Your task to perform on an android device: turn off javascript in the chrome app Image 0: 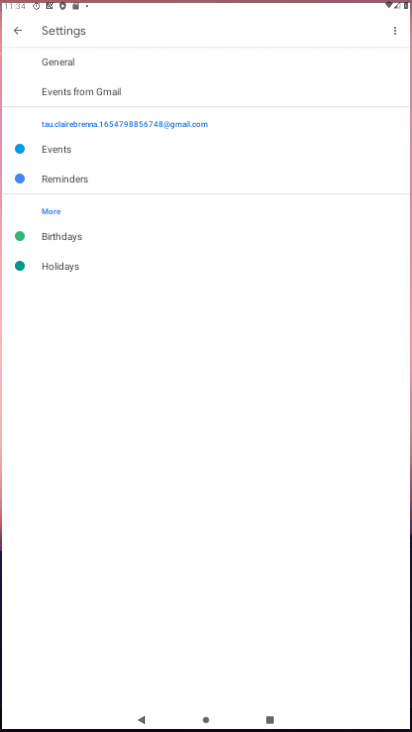
Step 0: drag from (272, 687) to (245, 137)
Your task to perform on an android device: turn off javascript in the chrome app Image 1: 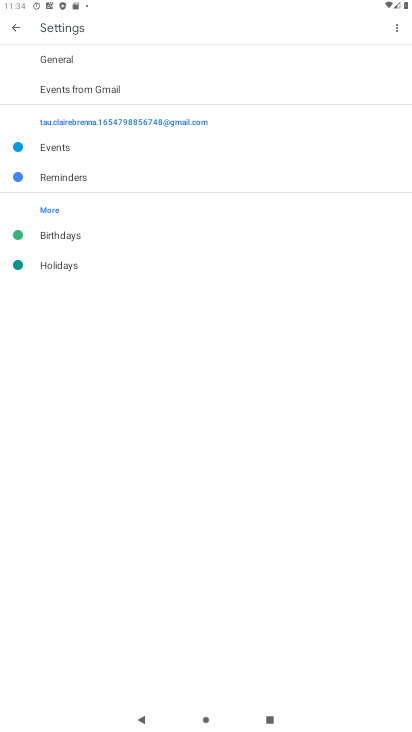
Step 1: click (24, 27)
Your task to perform on an android device: turn off javascript in the chrome app Image 2: 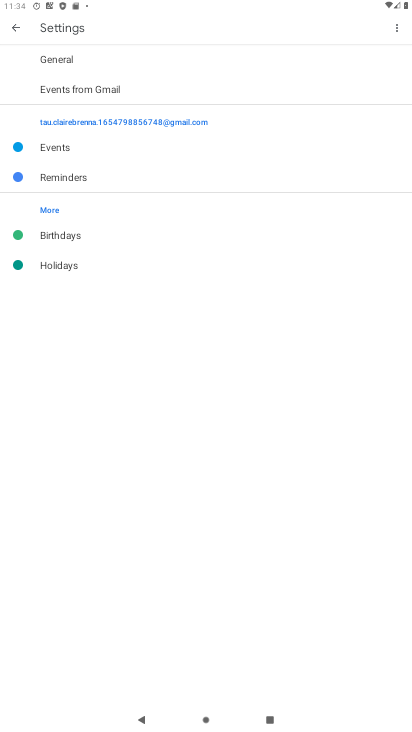
Step 2: click (19, 32)
Your task to perform on an android device: turn off javascript in the chrome app Image 3: 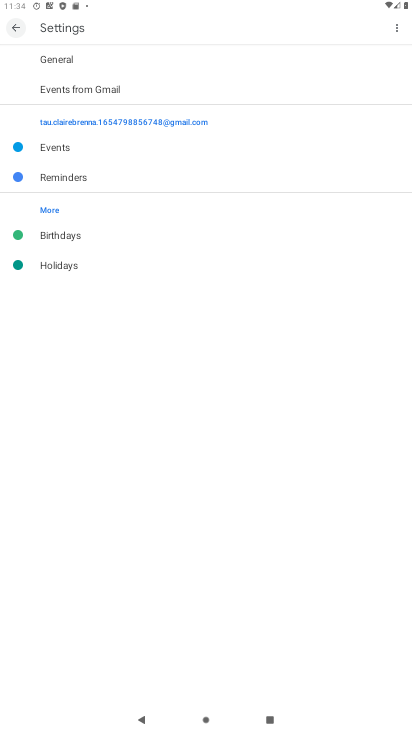
Step 3: click (19, 29)
Your task to perform on an android device: turn off javascript in the chrome app Image 4: 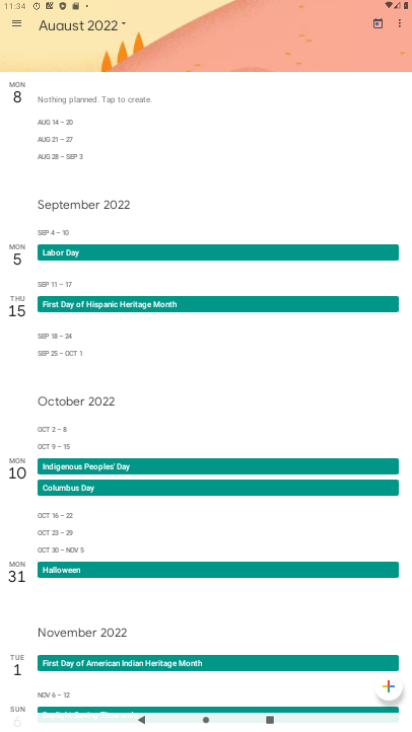
Step 4: click (15, 33)
Your task to perform on an android device: turn off javascript in the chrome app Image 5: 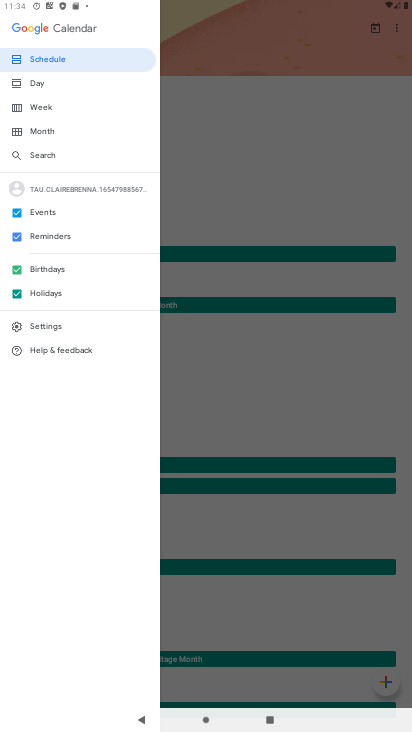
Step 5: click (339, 173)
Your task to perform on an android device: turn off javascript in the chrome app Image 6: 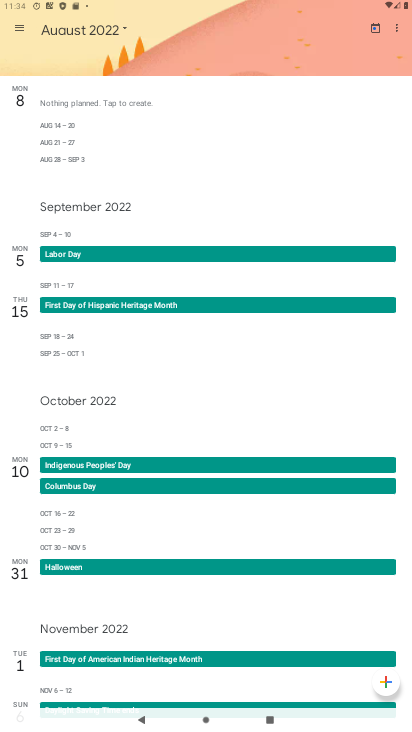
Step 6: click (212, 159)
Your task to perform on an android device: turn off javascript in the chrome app Image 7: 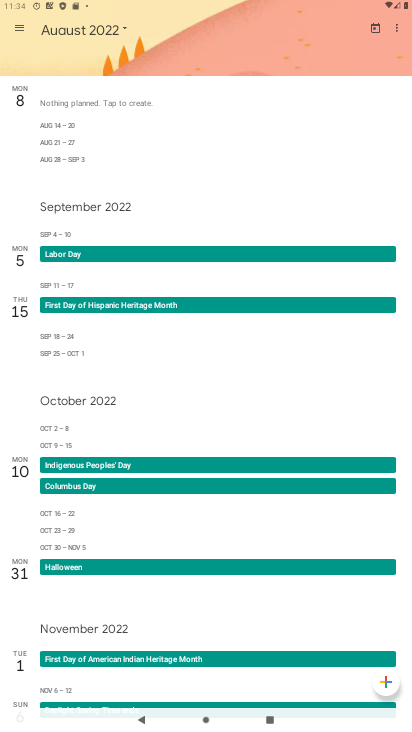
Step 7: press back button
Your task to perform on an android device: turn off javascript in the chrome app Image 8: 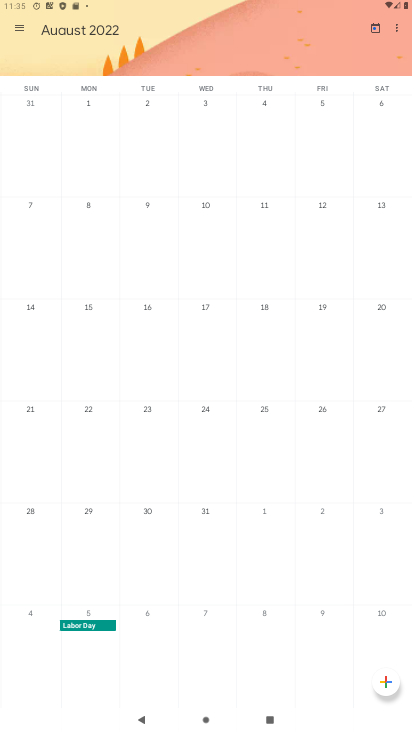
Step 8: press back button
Your task to perform on an android device: turn off javascript in the chrome app Image 9: 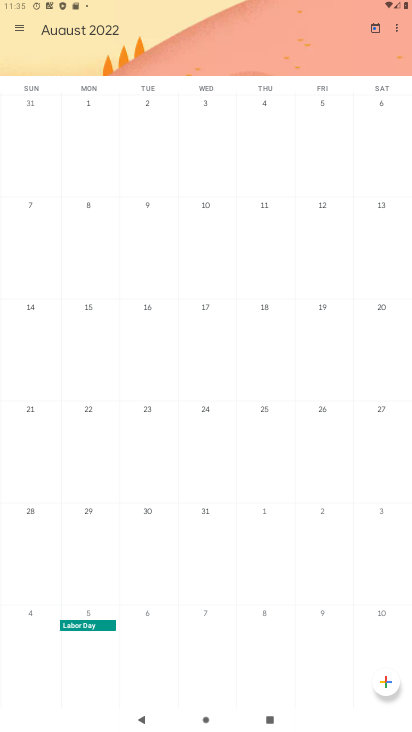
Step 9: press back button
Your task to perform on an android device: turn off javascript in the chrome app Image 10: 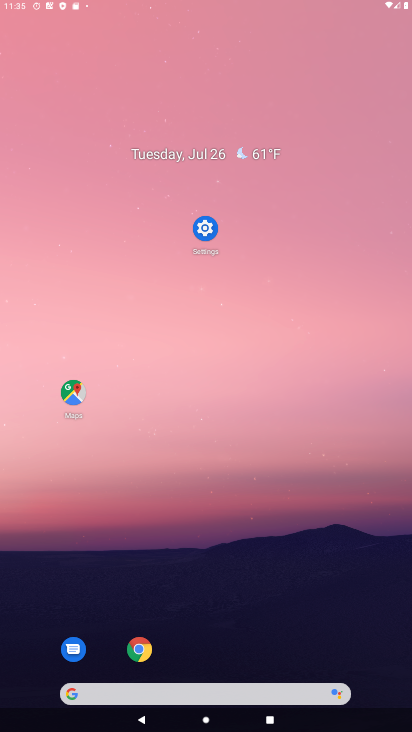
Step 10: press back button
Your task to perform on an android device: turn off javascript in the chrome app Image 11: 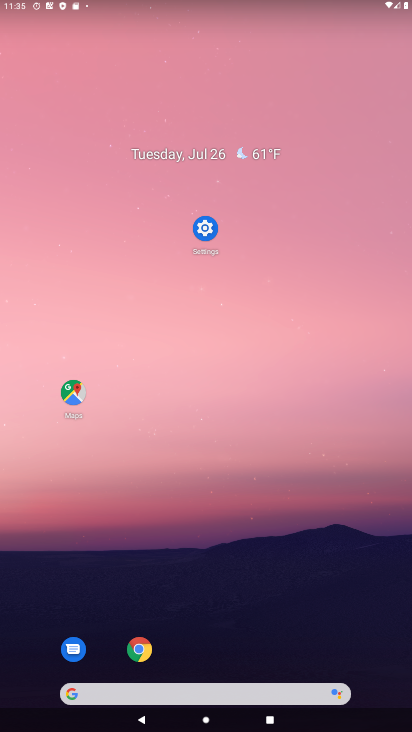
Step 11: press back button
Your task to perform on an android device: turn off javascript in the chrome app Image 12: 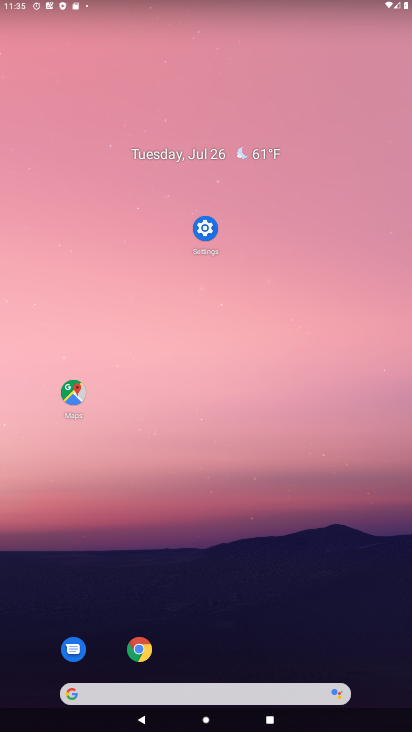
Step 12: press back button
Your task to perform on an android device: turn off javascript in the chrome app Image 13: 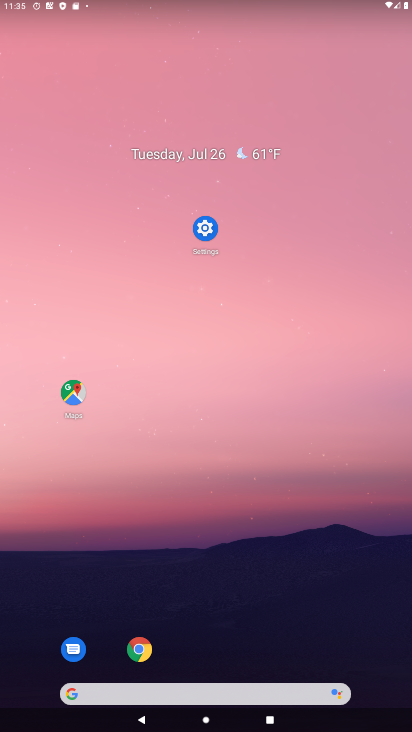
Step 13: click (197, 121)
Your task to perform on an android device: turn off javascript in the chrome app Image 14: 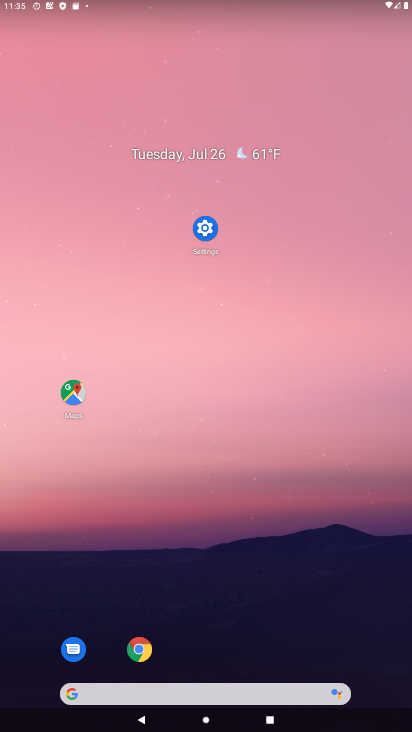
Step 14: drag from (255, 623) to (237, 74)
Your task to perform on an android device: turn off javascript in the chrome app Image 15: 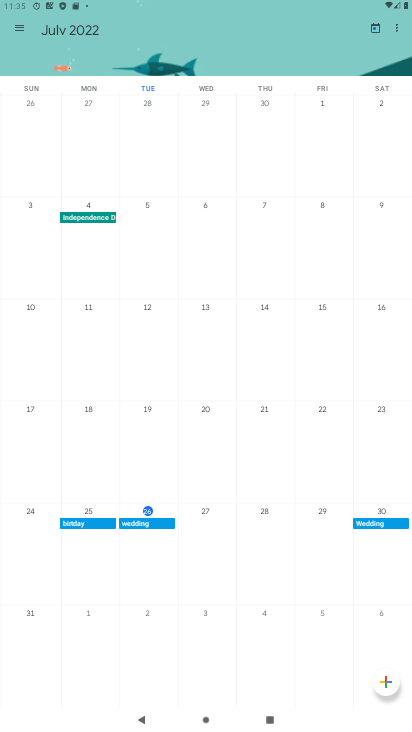
Step 15: press back button
Your task to perform on an android device: turn off javascript in the chrome app Image 16: 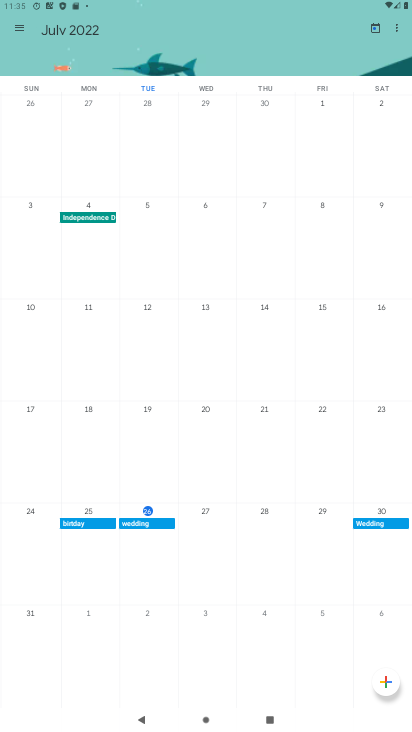
Step 16: press back button
Your task to perform on an android device: turn off javascript in the chrome app Image 17: 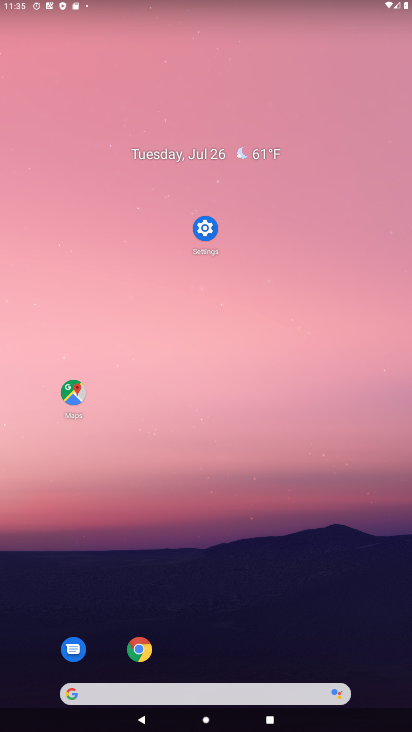
Step 17: drag from (188, 636) to (158, 293)
Your task to perform on an android device: turn off javascript in the chrome app Image 18: 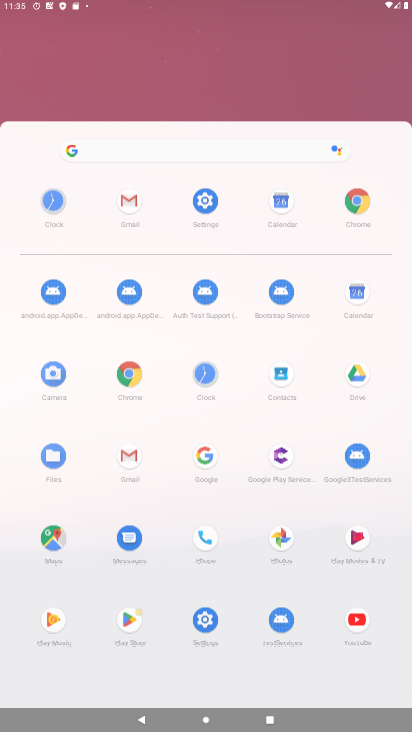
Step 18: drag from (240, 524) to (182, 95)
Your task to perform on an android device: turn off javascript in the chrome app Image 19: 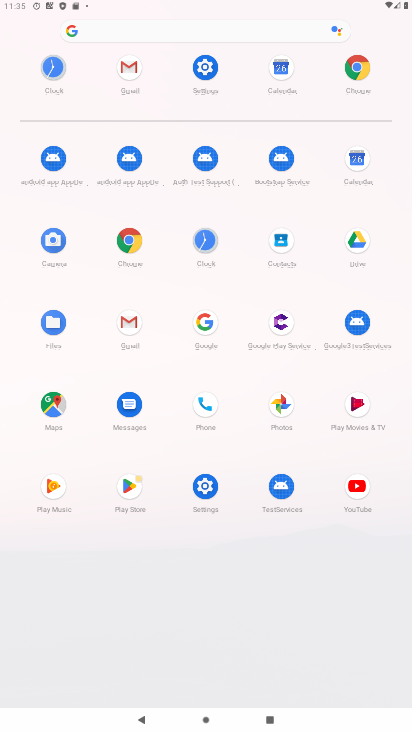
Step 19: drag from (229, 509) to (184, 168)
Your task to perform on an android device: turn off javascript in the chrome app Image 20: 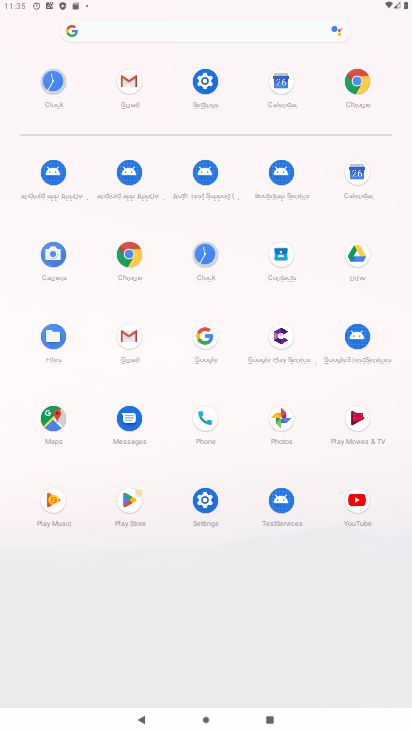
Step 20: click (127, 268)
Your task to perform on an android device: turn off javascript in the chrome app Image 21: 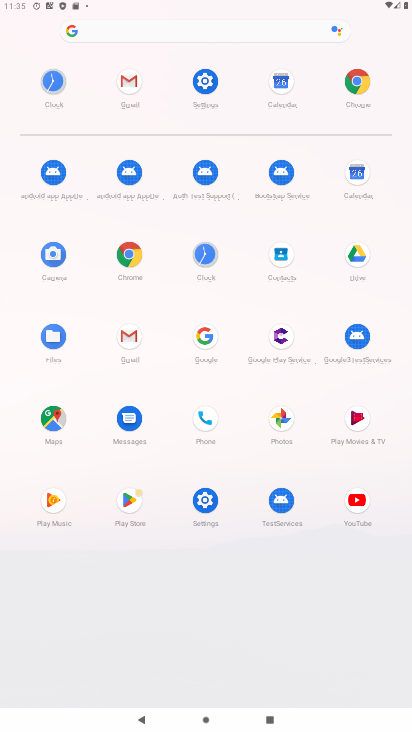
Step 21: click (128, 265)
Your task to perform on an android device: turn off javascript in the chrome app Image 22: 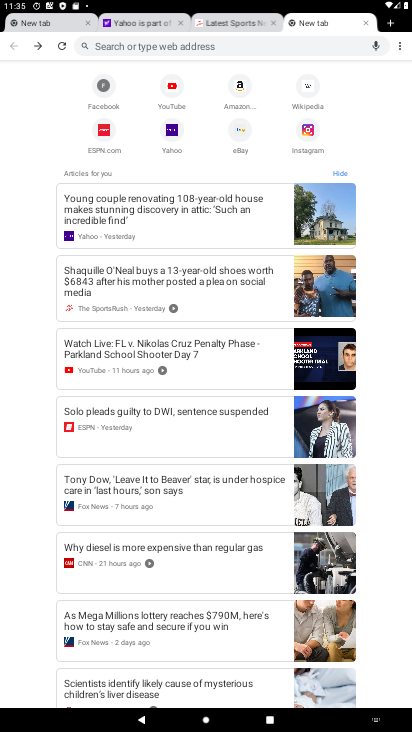
Step 22: drag from (395, 50) to (301, 206)
Your task to perform on an android device: turn off javascript in the chrome app Image 23: 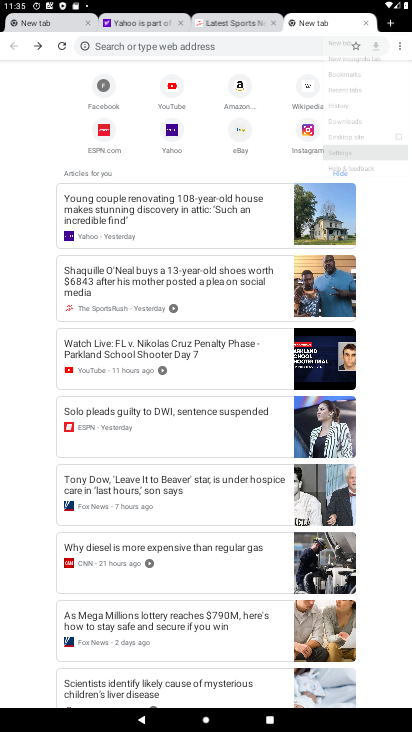
Step 23: click (311, 209)
Your task to perform on an android device: turn off javascript in the chrome app Image 24: 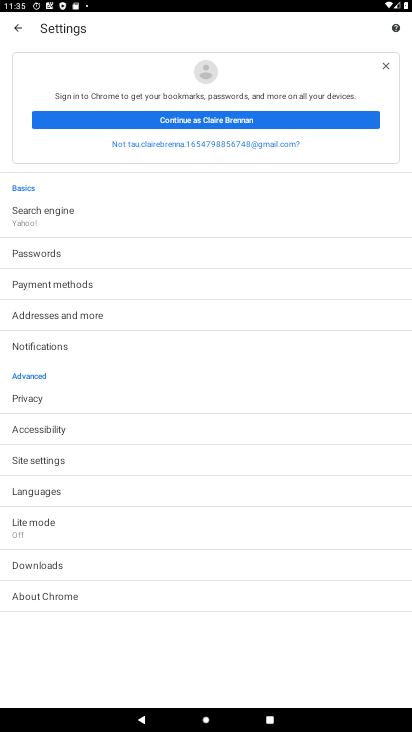
Step 24: click (28, 462)
Your task to perform on an android device: turn off javascript in the chrome app Image 25: 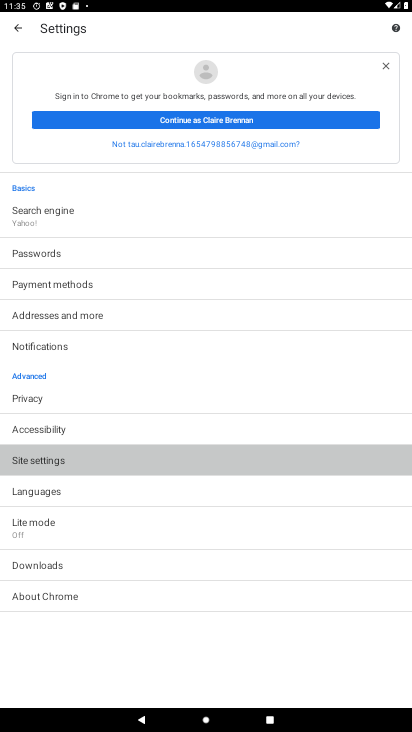
Step 25: click (30, 458)
Your task to perform on an android device: turn off javascript in the chrome app Image 26: 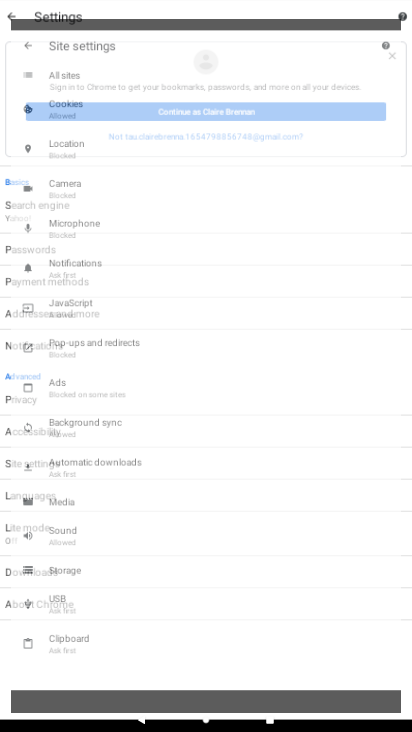
Step 26: click (30, 456)
Your task to perform on an android device: turn off javascript in the chrome app Image 27: 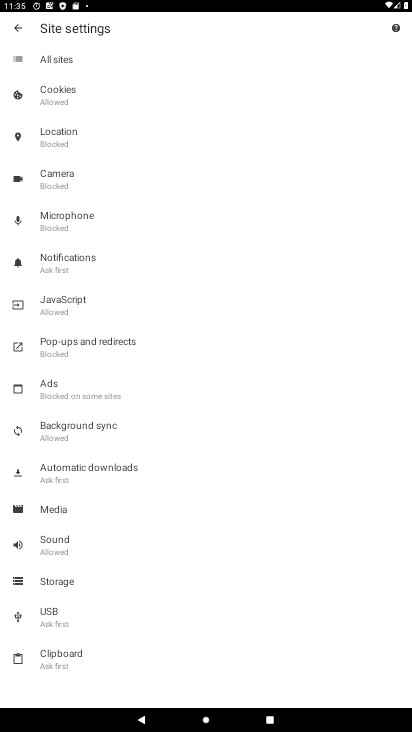
Step 27: click (30, 454)
Your task to perform on an android device: turn off javascript in the chrome app Image 28: 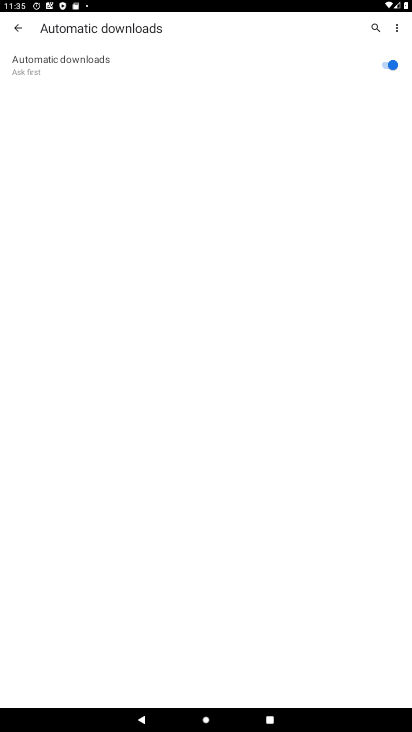
Step 28: click (17, 22)
Your task to perform on an android device: turn off javascript in the chrome app Image 29: 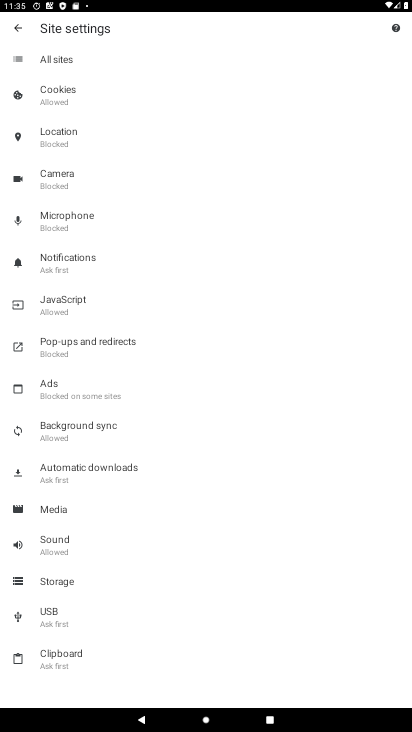
Step 29: click (79, 302)
Your task to perform on an android device: turn off javascript in the chrome app Image 30: 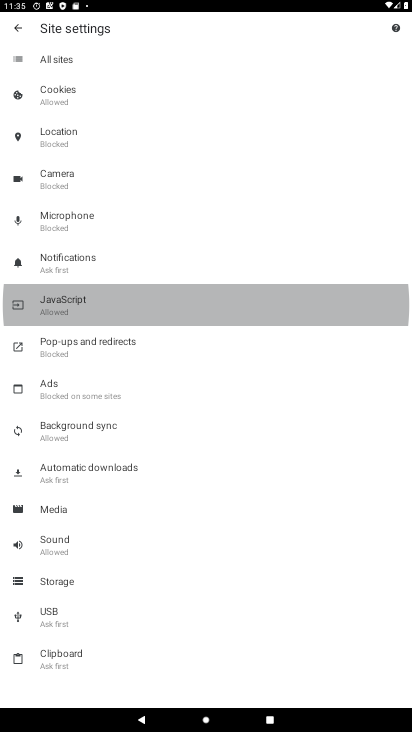
Step 30: click (83, 306)
Your task to perform on an android device: turn off javascript in the chrome app Image 31: 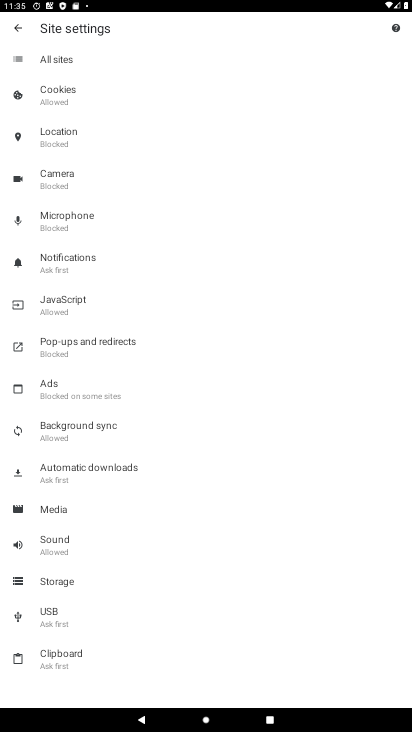
Step 31: click (85, 304)
Your task to perform on an android device: turn off javascript in the chrome app Image 32: 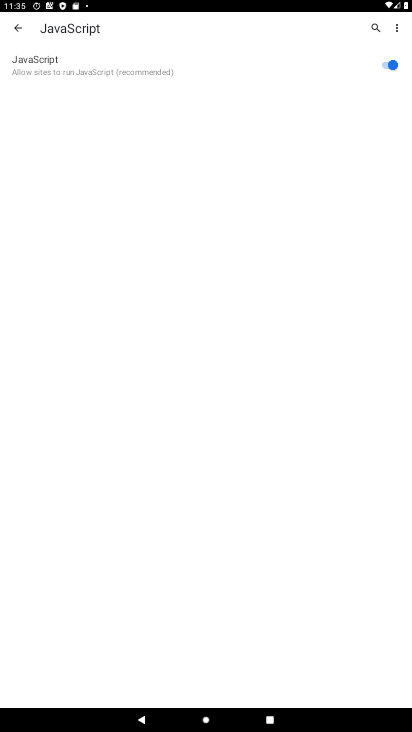
Step 32: click (394, 67)
Your task to perform on an android device: turn off javascript in the chrome app Image 33: 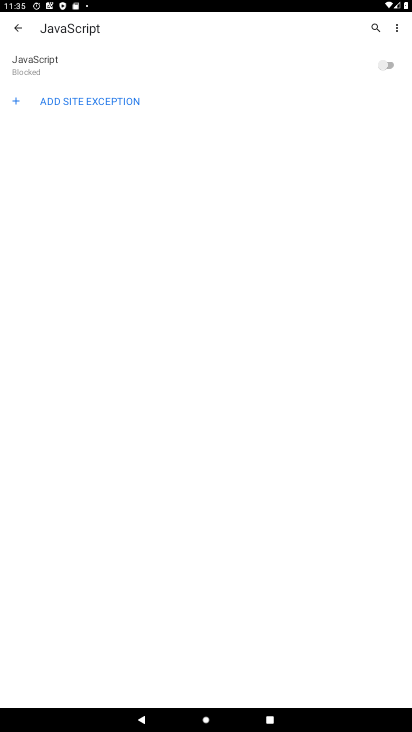
Step 33: task complete